Your task to perform on an android device: Open Yahoo.com Image 0: 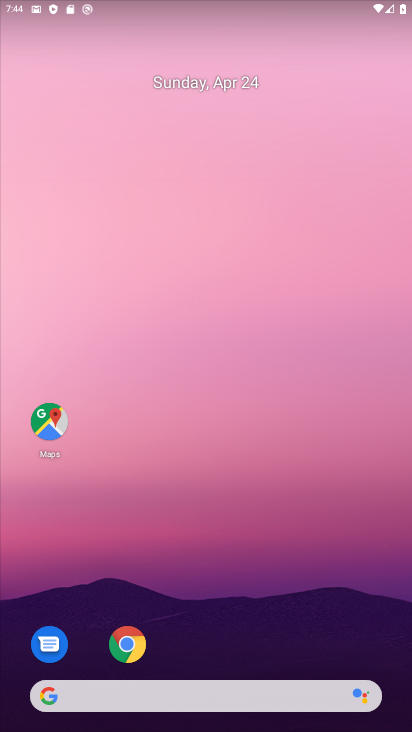
Step 0: click (124, 650)
Your task to perform on an android device: Open Yahoo.com Image 1: 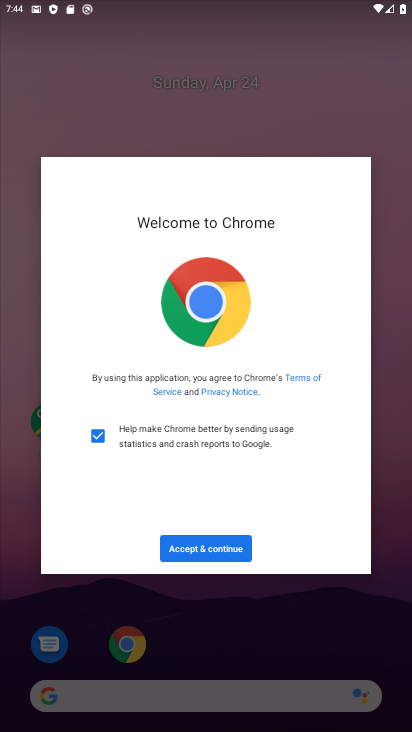
Step 1: click (197, 547)
Your task to perform on an android device: Open Yahoo.com Image 2: 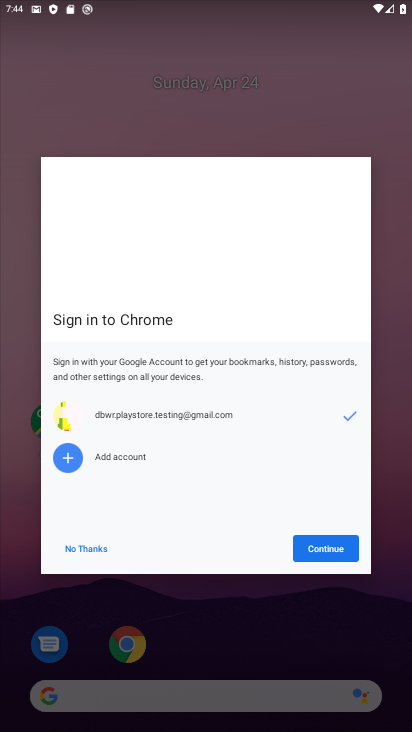
Step 2: click (333, 553)
Your task to perform on an android device: Open Yahoo.com Image 3: 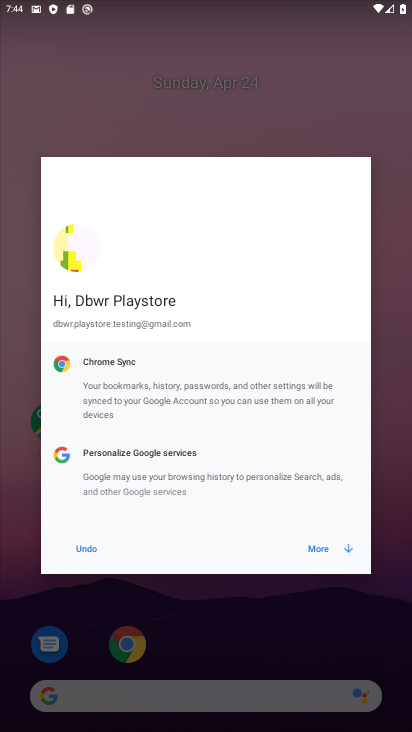
Step 3: click (330, 542)
Your task to perform on an android device: Open Yahoo.com Image 4: 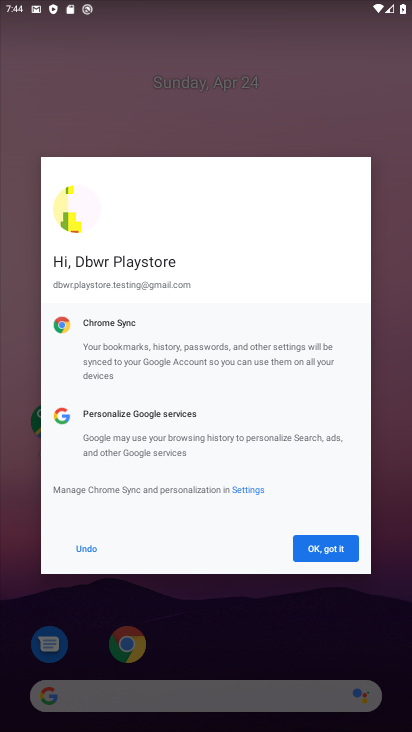
Step 4: click (330, 542)
Your task to perform on an android device: Open Yahoo.com Image 5: 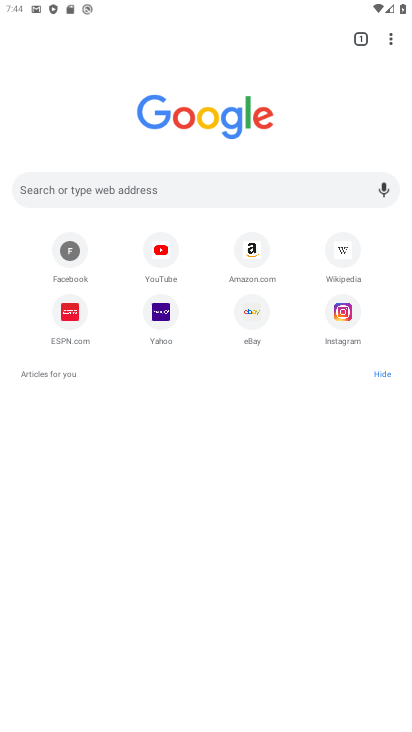
Step 5: click (160, 312)
Your task to perform on an android device: Open Yahoo.com Image 6: 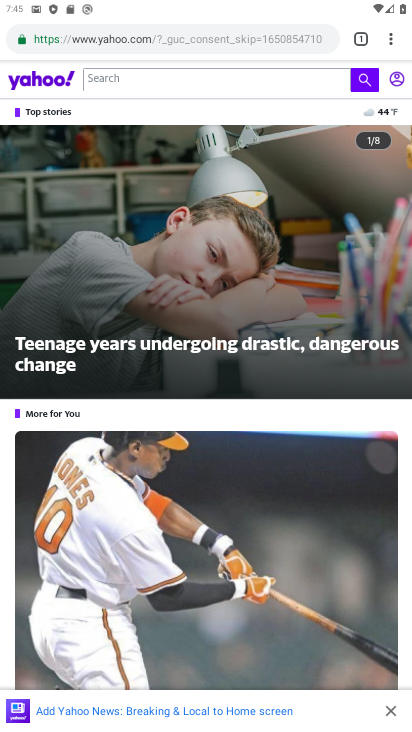
Step 6: task complete